Your task to perform on an android device: turn on sleep mode Image 0: 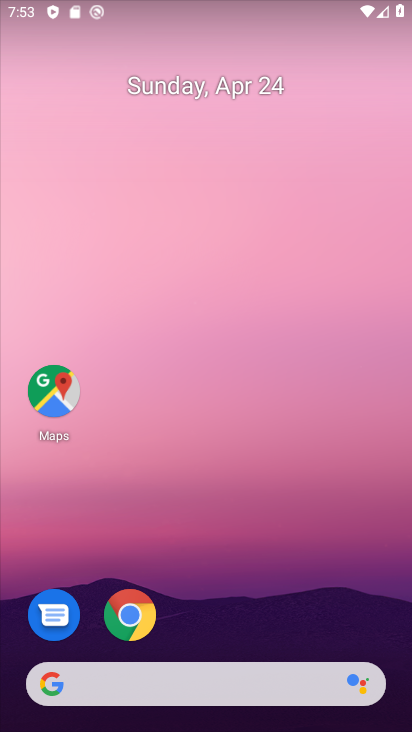
Step 0: drag from (282, 638) to (324, 20)
Your task to perform on an android device: turn on sleep mode Image 1: 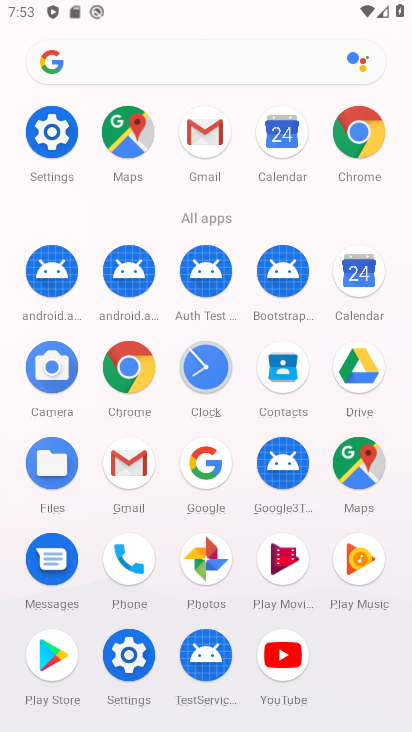
Step 1: click (31, 124)
Your task to perform on an android device: turn on sleep mode Image 2: 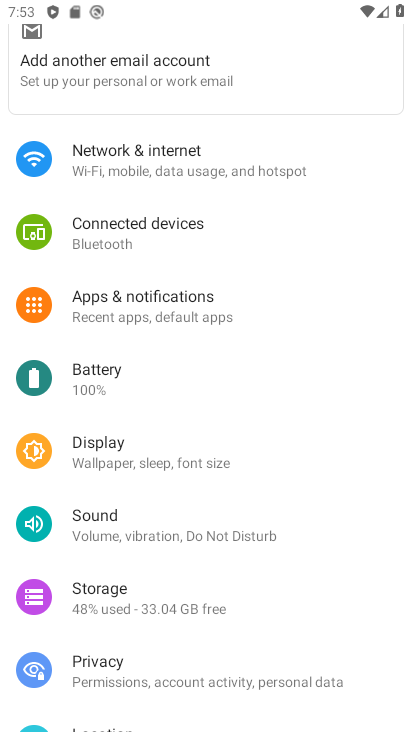
Step 2: click (167, 447)
Your task to perform on an android device: turn on sleep mode Image 3: 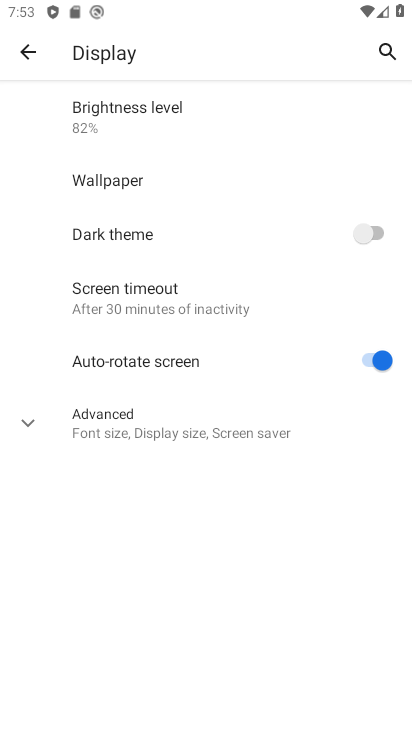
Step 3: click (216, 291)
Your task to perform on an android device: turn on sleep mode Image 4: 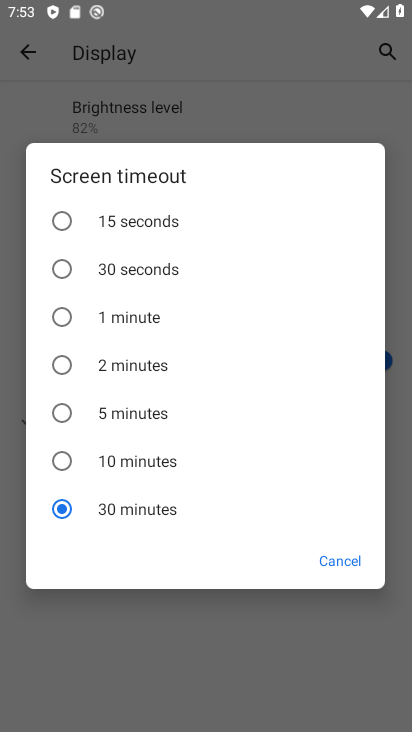
Step 4: task complete